Your task to perform on an android device: toggle priority inbox in the gmail app Image 0: 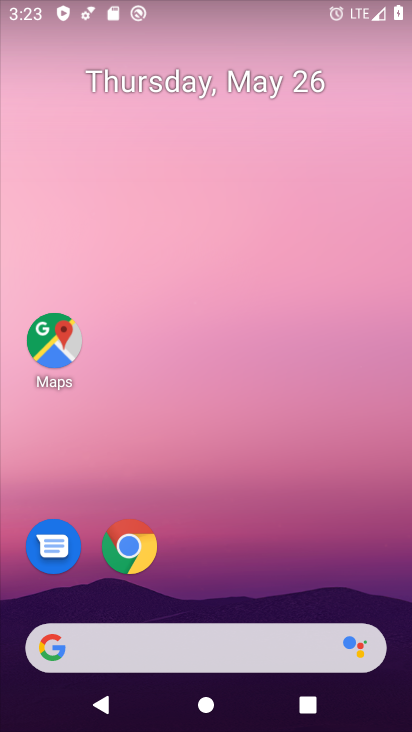
Step 0: drag from (294, 577) to (293, 221)
Your task to perform on an android device: toggle priority inbox in the gmail app Image 1: 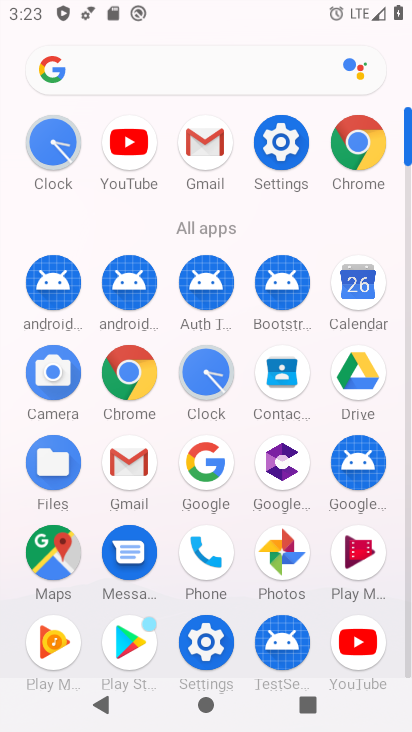
Step 1: click (191, 151)
Your task to perform on an android device: toggle priority inbox in the gmail app Image 2: 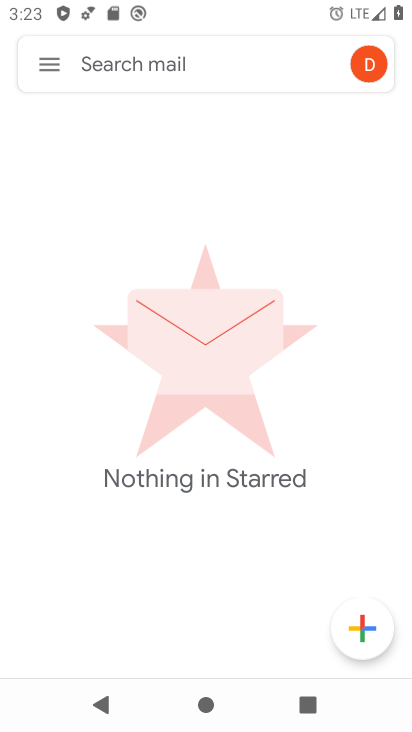
Step 2: click (47, 62)
Your task to perform on an android device: toggle priority inbox in the gmail app Image 3: 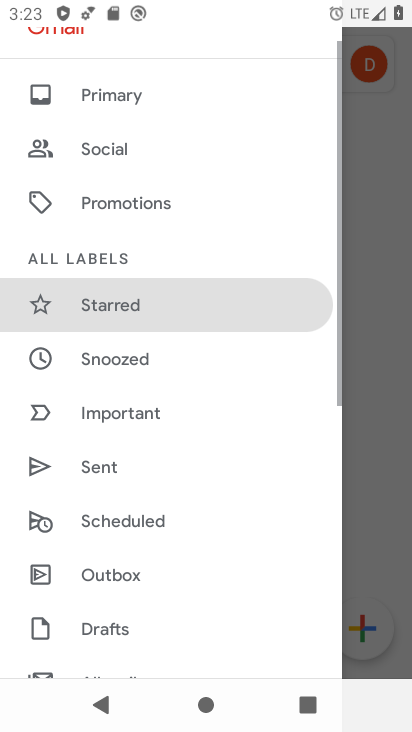
Step 3: drag from (166, 604) to (259, 143)
Your task to perform on an android device: toggle priority inbox in the gmail app Image 4: 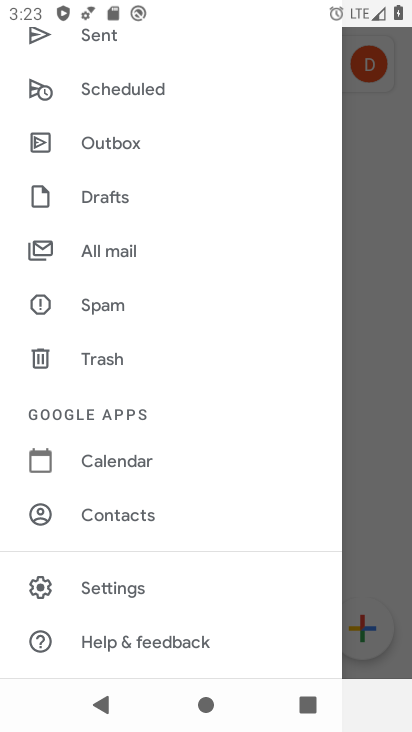
Step 4: click (131, 585)
Your task to perform on an android device: toggle priority inbox in the gmail app Image 5: 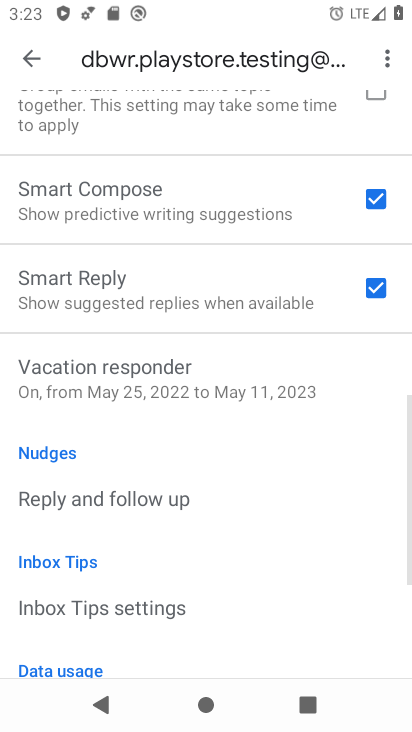
Step 5: drag from (143, 151) to (125, 668)
Your task to perform on an android device: toggle priority inbox in the gmail app Image 6: 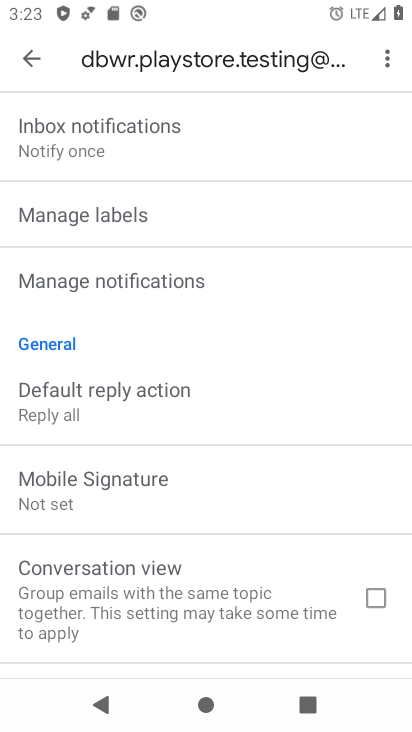
Step 6: drag from (179, 284) to (172, 641)
Your task to perform on an android device: toggle priority inbox in the gmail app Image 7: 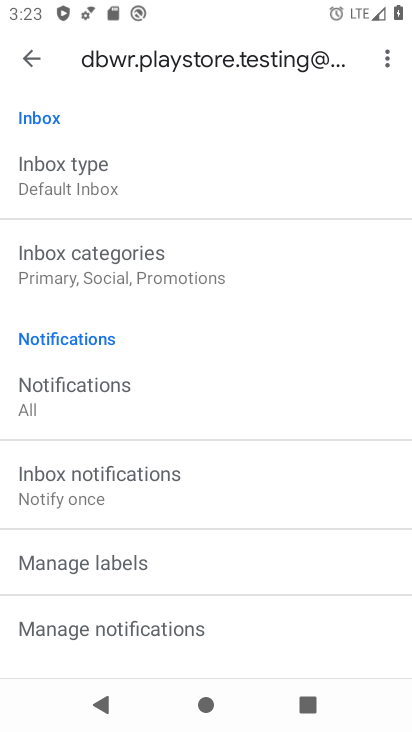
Step 7: click (97, 177)
Your task to perform on an android device: toggle priority inbox in the gmail app Image 8: 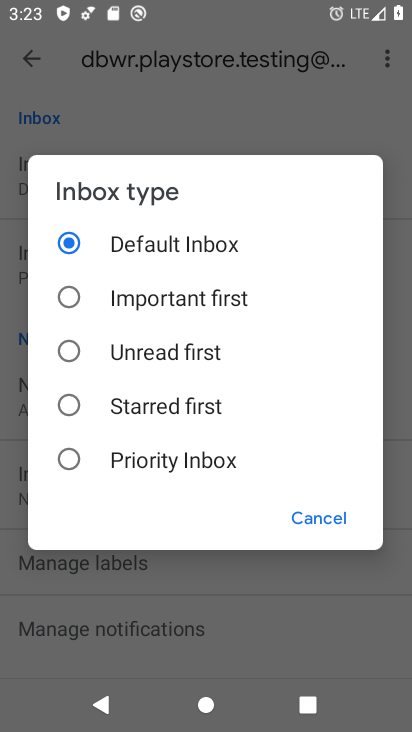
Step 8: click (75, 458)
Your task to perform on an android device: toggle priority inbox in the gmail app Image 9: 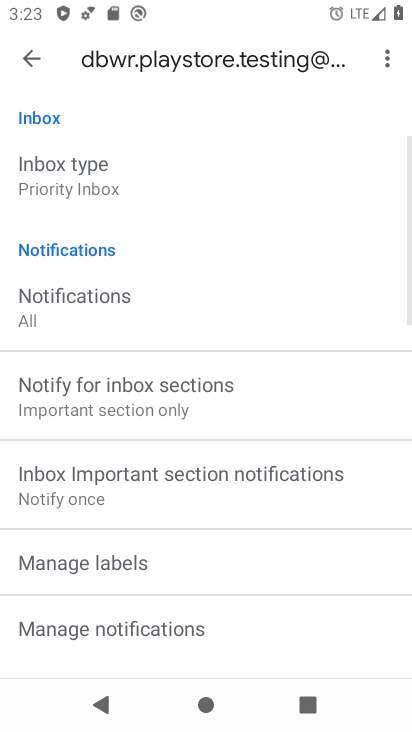
Step 9: task complete